Your task to perform on an android device: Is it going to rain today? Image 0: 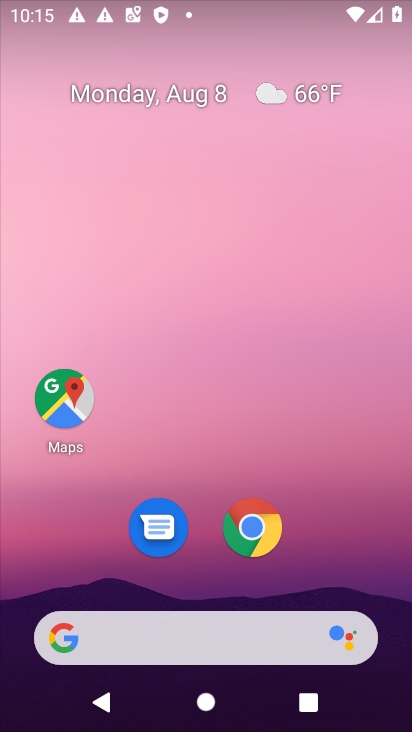
Step 0: drag from (406, 708) to (296, 93)
Your task to perform on an android device: Is it going to rain today? Image 1: 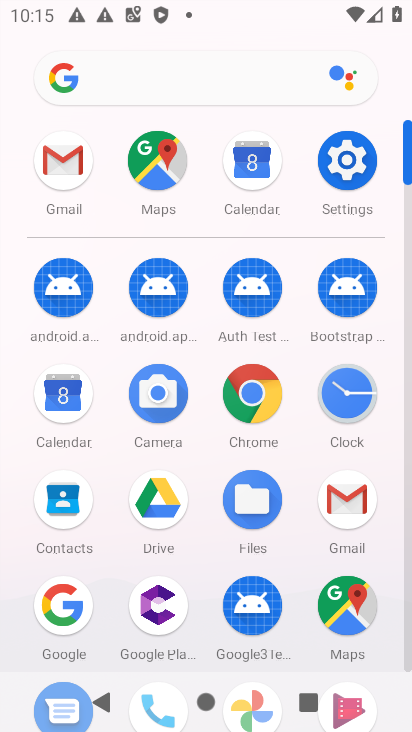
Step 1: click (67, 600)
Your task to perform on an android device: Is it going to rain today? Image 2: 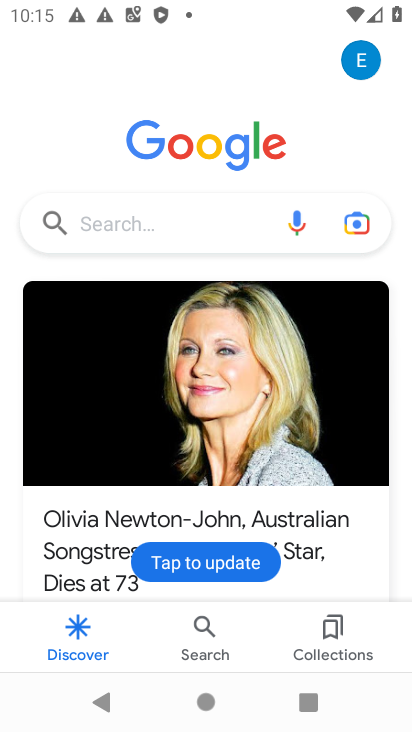
Step 2: task complete